Your task to perform on an android device: Open calendar and show me the fourth week of next month Image 0: 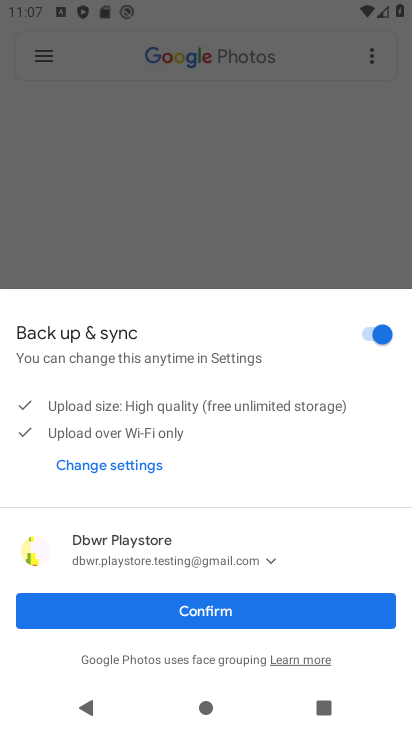
Step 0: press home button
Your task to perform on an android device: Open calendar and show me the fourth week of next month Image 1: 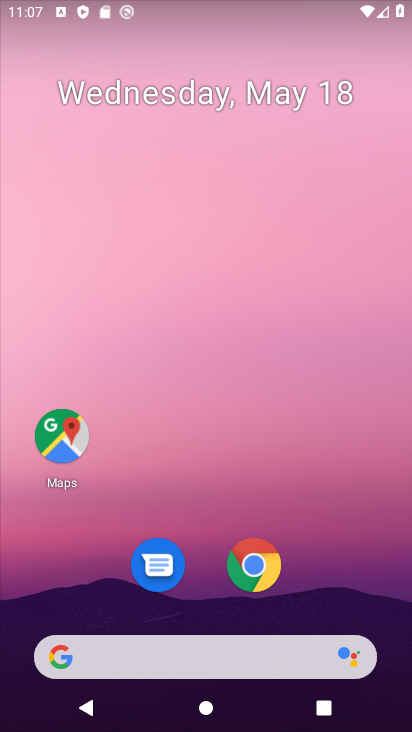
Step 1: drag from (210, 677) to (192, 246)
Your task to perform on an android device: Open calendar and show me the fourth week of next month Image 2: 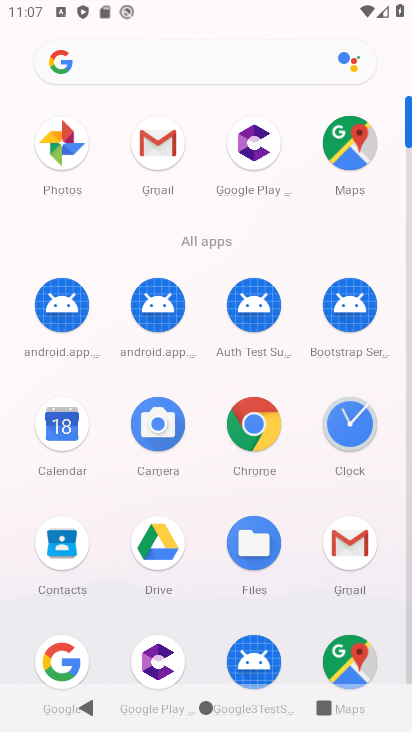
Step 2: click (58, 442)
Your task to perform on an android device: Open calendar and show me the fourth week of next month Image 3: 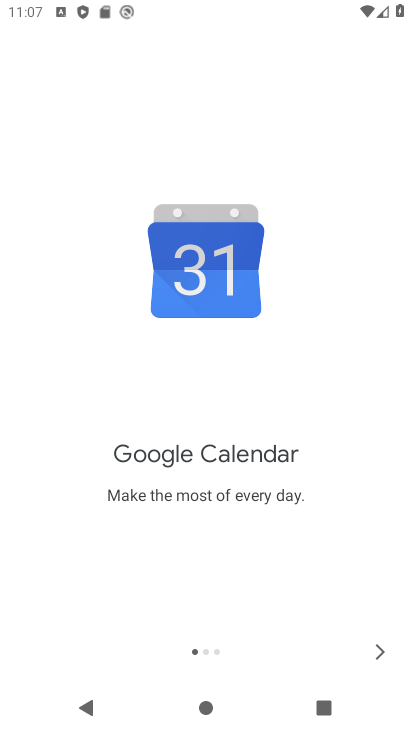
Step 3: click (372, 646)
Your task to perform on an android device: Open calendar and show me the fourth week of next month Image 4: 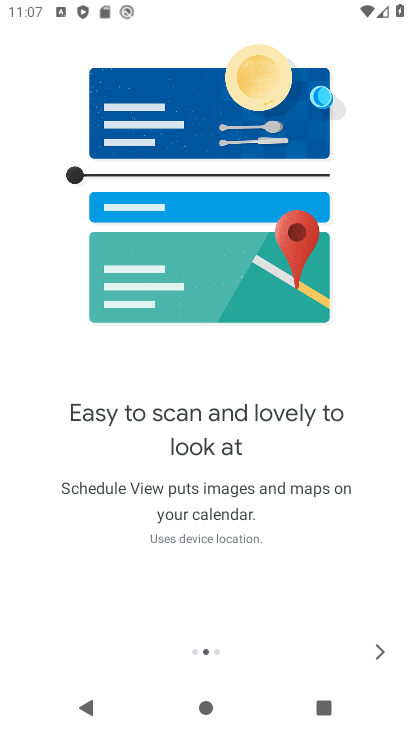
Step 4: click (372, 646)
Your task to perform on an android device: Open calendar and show me the fourth week of next month Image 5: 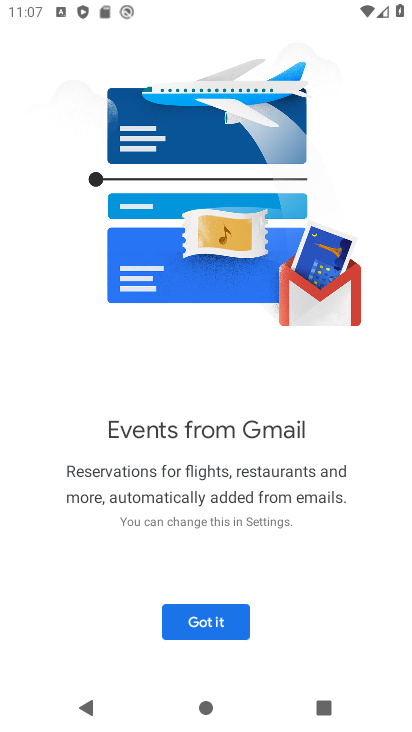
Step 5: click (210, 626)
Your task to perform on an android device: Open calendar and show me the fourth week of next month Image 6: 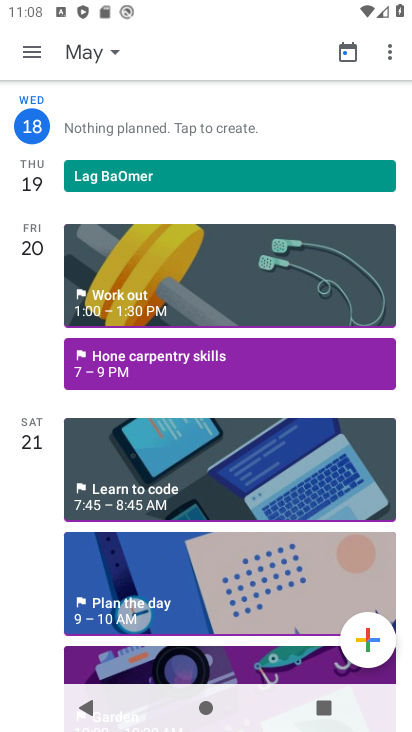
Step 6: click (33, 59)
Your task to perform on an android device: Open calendar and show me the fourth week of next month Image 7: 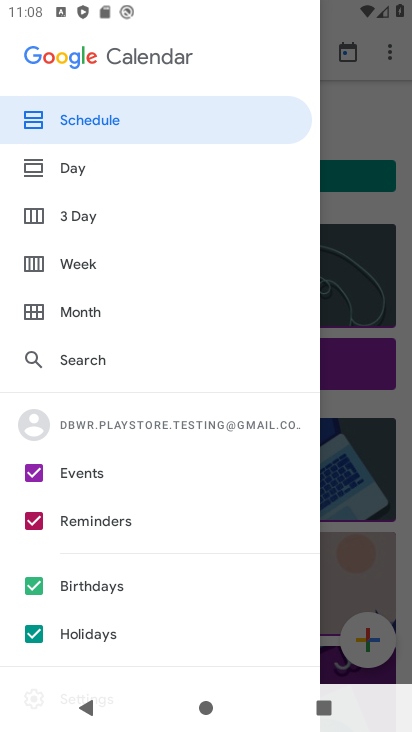
Step 7: click (65, 314)
Your task to perform on an android device: Open calendar and show me the fourth week of next month Image 8: 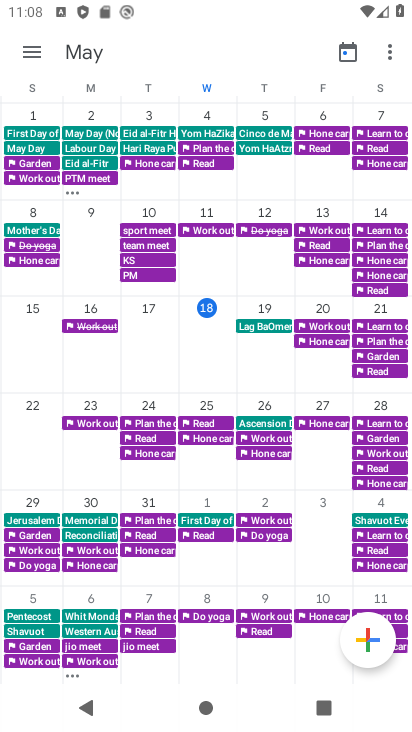
Step 8: task complete